Your task to perform on an android device: Go to settings Image 0: 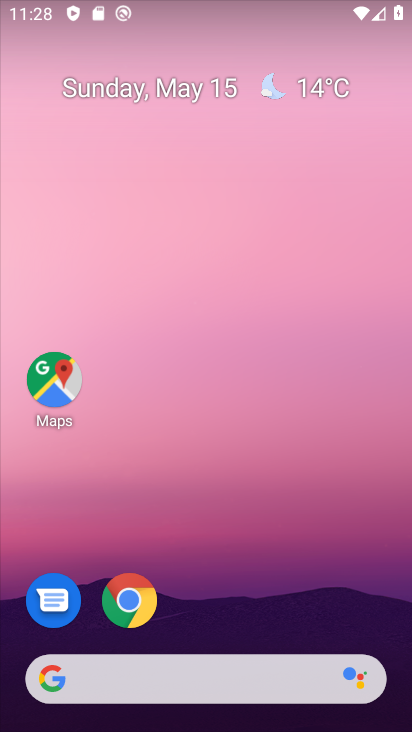
Step 0: drag from (402, 659) to (325, 11)
Your task to perform on an android device: Go to settings Image 1: 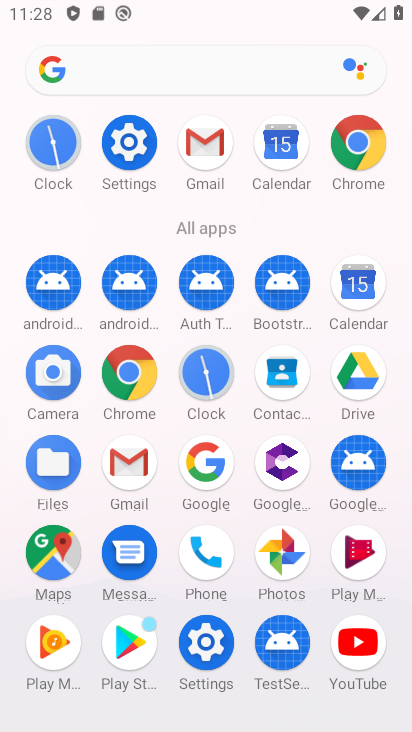
Step 1: click (205, 646)
Your task to perform on an android device: Go to settings Image 2: 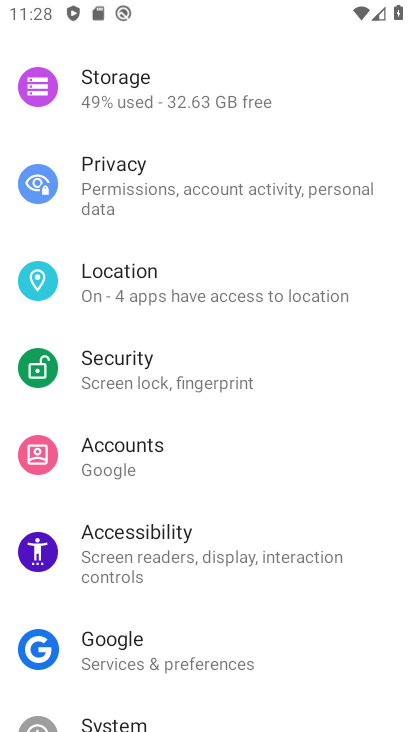
Step 2: task complete